Your task to perform on an android device: Check the news Image 0: 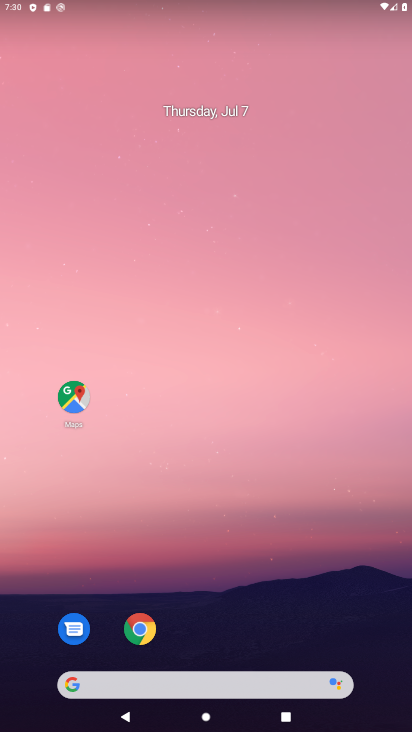
Step 0: drag from (0, 204) to (364, 245)
Your task to perform on an android device: Check the news Image 1: 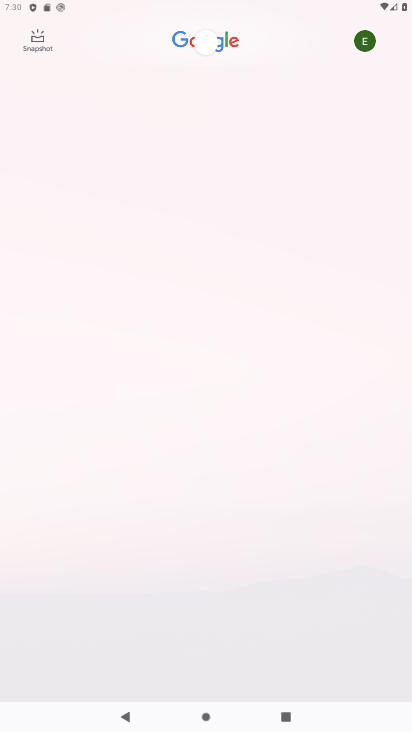
Step 1: task complete